Your task to perform on an android device: turn off improve location accuracy Image 0: 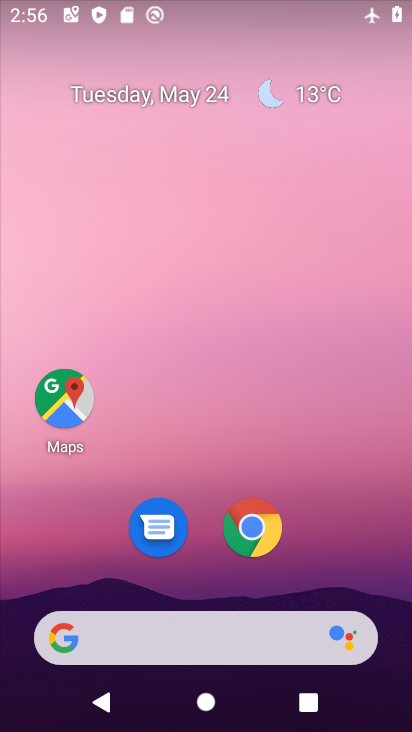
Step 0: drag from (217, 582) to (299, 0)
Your task to perform on an android device: turn off improve location accuracy Image 1: 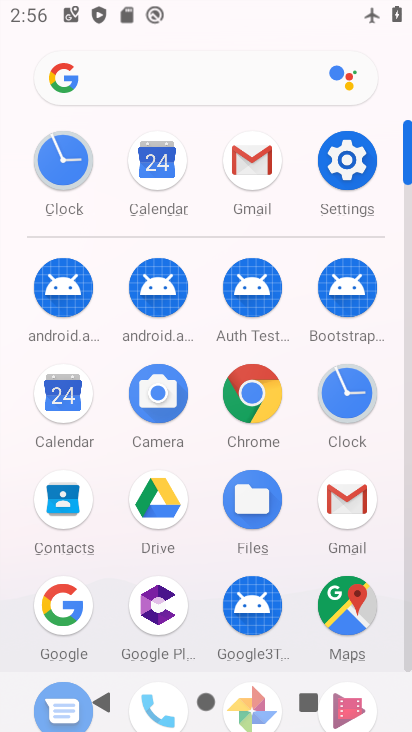
Step 1: click (333, 178)
Your task to perform on an android device: turn off improve location accuracy Image 2: 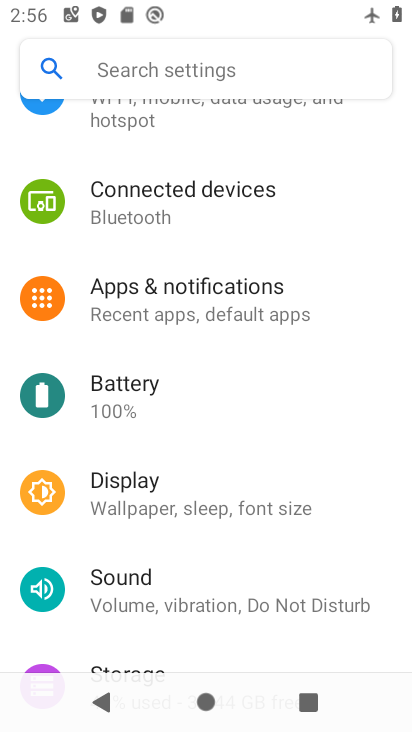
Step 2: drag from (168, 595) to (223, 236)
Your task to perform on an android device: turn off improve location accuracy Image 3: 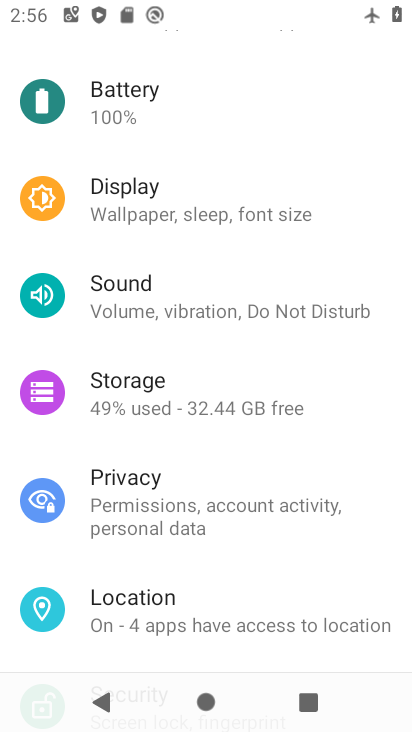
Step 3: click (127, 608)
Your task to perform on an android device: turn off improve location accuracy Image 4: 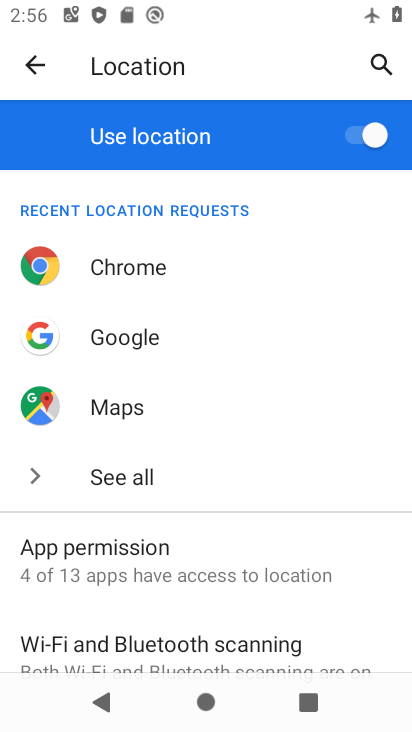
Step 4: drag from (143, 589) to (211, 211)
Your task to perform on an android device: turn off improve location accuracy Image 5: 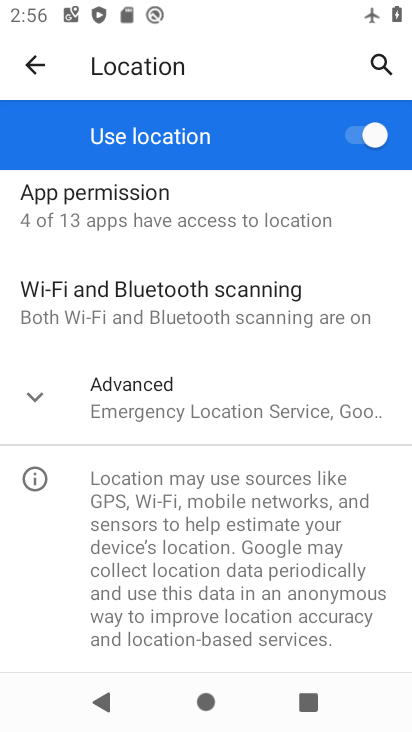
Step 5: click (237, 395)
Your task to perform on an android device: turn off improve location accuracy Image 6: 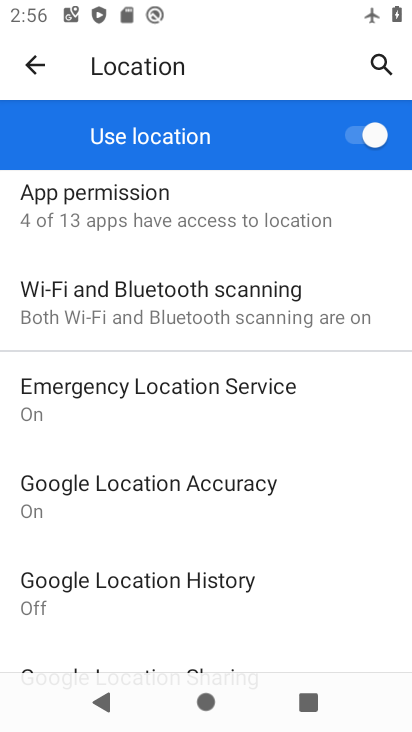
Step 6: drag from (169, 603) to (216, 435)
Your task to perform on an android device: turn off improve location accuracy Image 7: 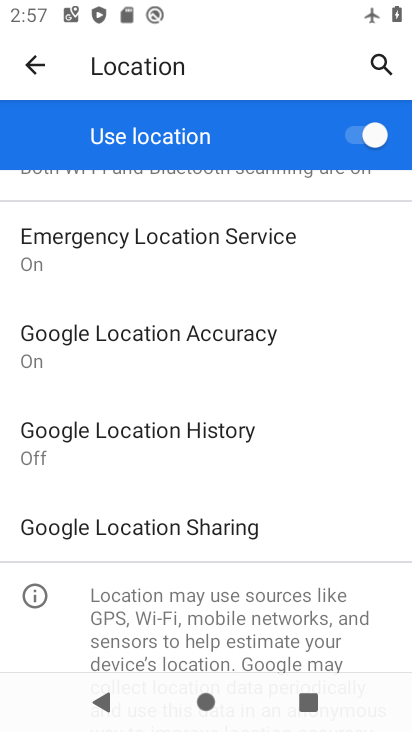
Step 7: click (173, 345)
Your task to perform on an android device: turn off improve location accuracy Image 8: 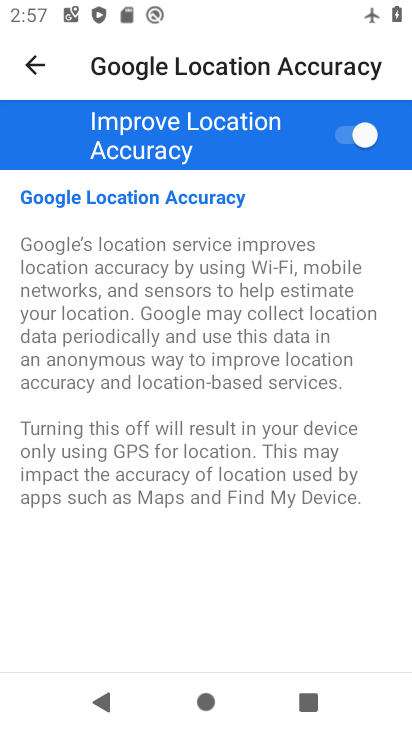
Step 8: click (358, 145)
Your task to perform on an android device: turn off improve location accuracy Image 9: 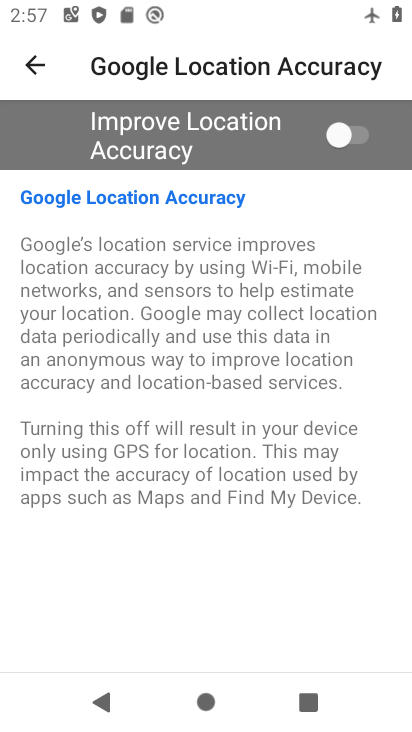
Step 9: task complete